Your task to perform on an android device: open chrome and create a bookmark for the current page Image 0: 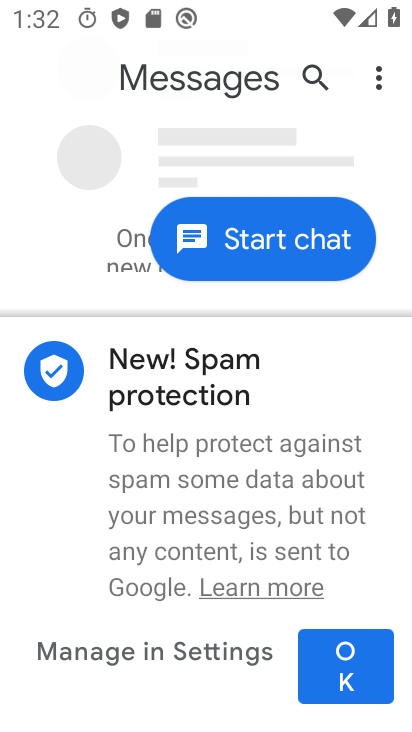
Step 0: press home button
Your task to perform on an android device: open chrome and create a bookmark for the current page Image 1: 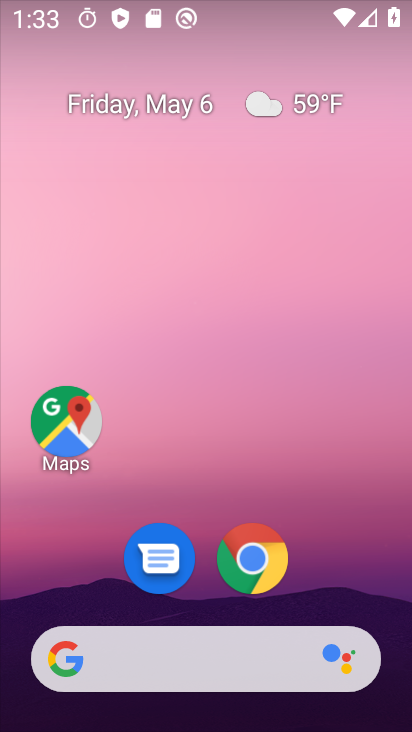
Step 1: click (244, 565)
Your task to perform on an android device: open chrome and create a bookmark for the current page Image 2: 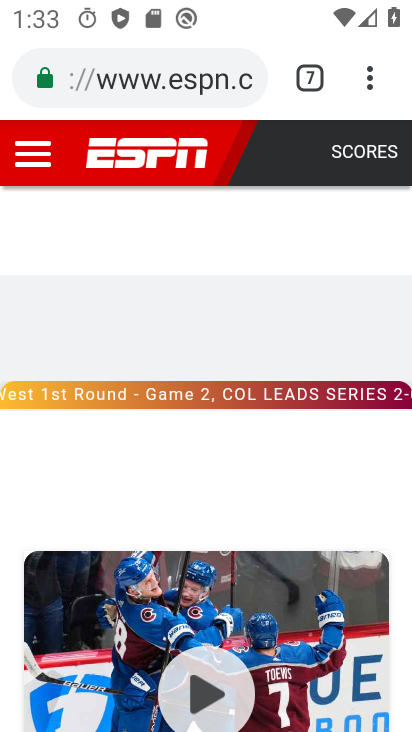
Step 2: task complete